Your task to perform on an android device: turn off priority inbox in the gmail app Image 0: 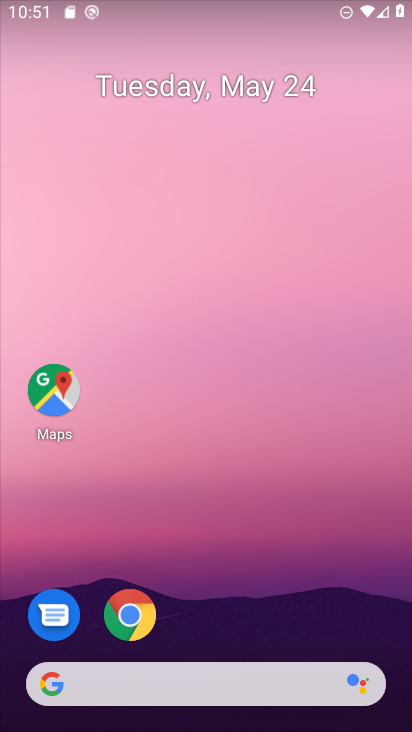
Step 0: press home button
Your task to perform on an android device: turn off priority inbox in the gmail app Image 1: 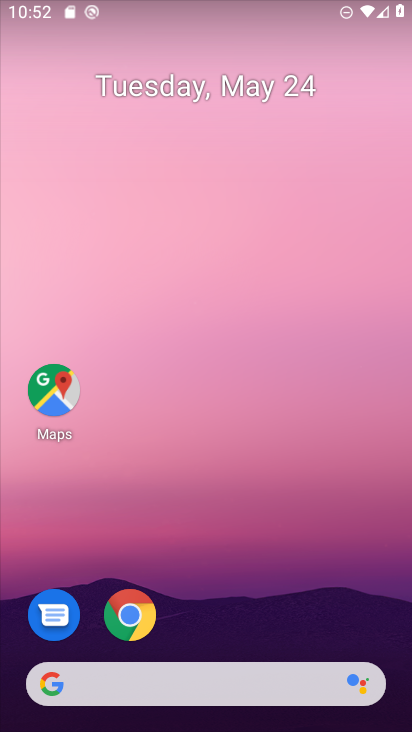
Step 1: drag from (303, 702) to (374, 3)
Your task to perform on an android device: turn off priority inbox in the gmail app Image 2: 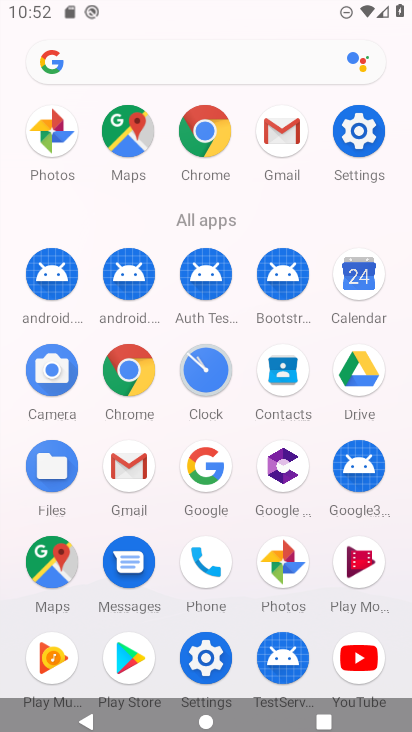
Step 2: click (302, 133)
Your task to perform on an android device: turn off priority inbox in the gmail app Image 3: 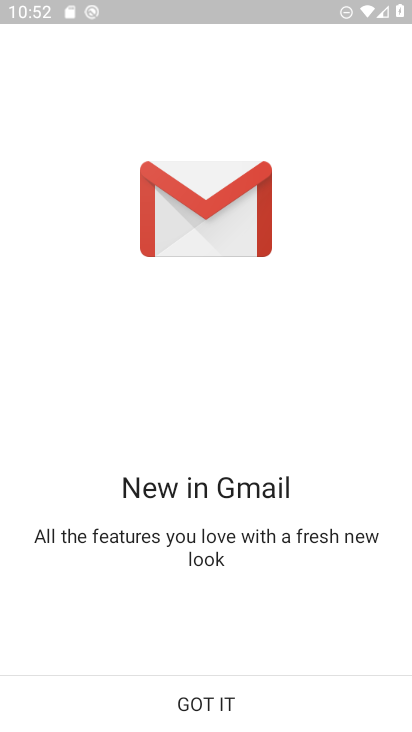
Step 3: click (218, 699)
Your task to perform on an android device: turn off priority inbox in the gmail app Image 4: 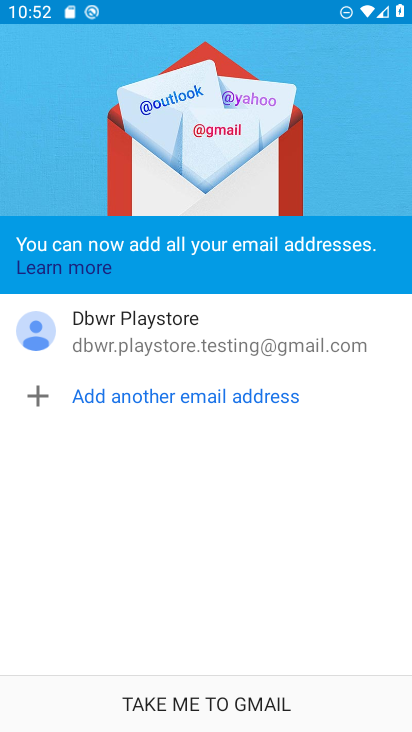
Step 4: click (249, 703)
Your task to perform on an android device: turn off priority inbox in the gmail app Image 5: 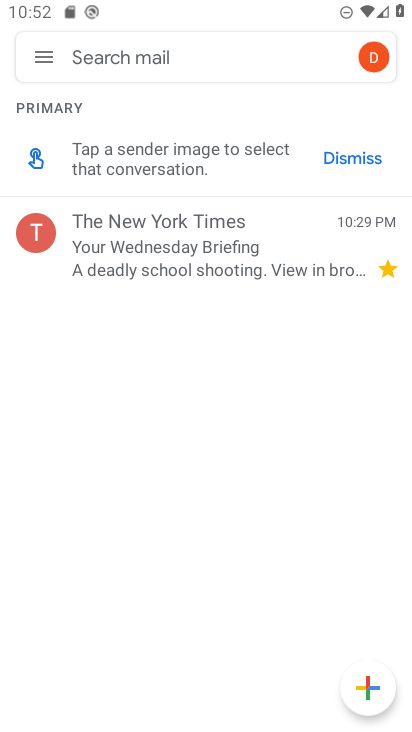
Step 5: click (41, 86)
Your task to perform on an android device: turn off priority inbox in the gmail app Image 6: 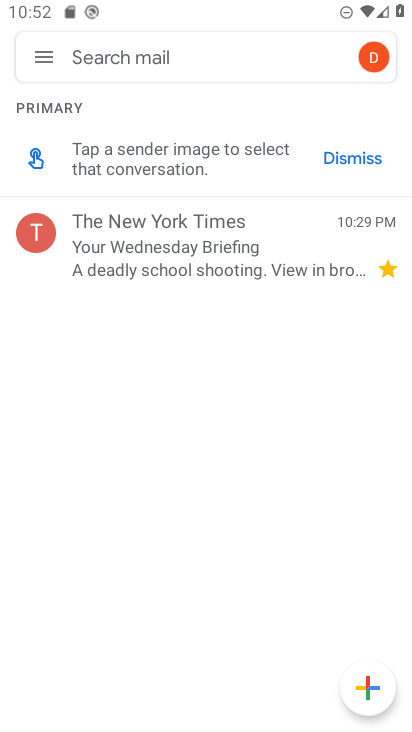
Step 6: click (59, 50)
Your task to perform on an android device: turn off priority inbox in the gmail app Image 7: 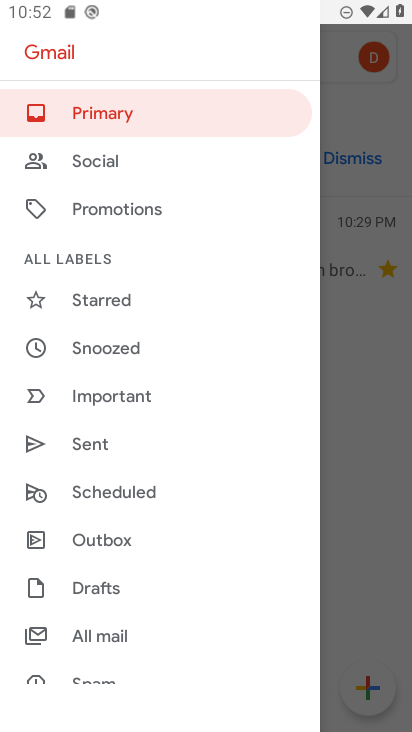
Step 7: drag from (128, 622) to (223, 266)
Your task to perform on an android device: turn off priority inbox in the gmail app Image 8: 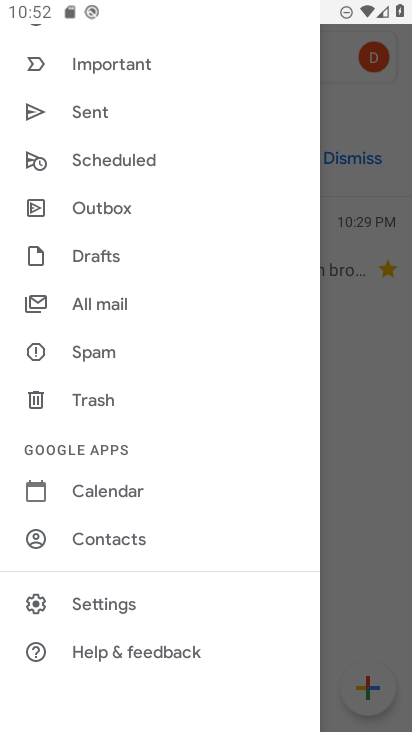
Step 8: click (132, 598)
Your task to perform on an android device: turn off priority inbox in the gmail app Image 9: 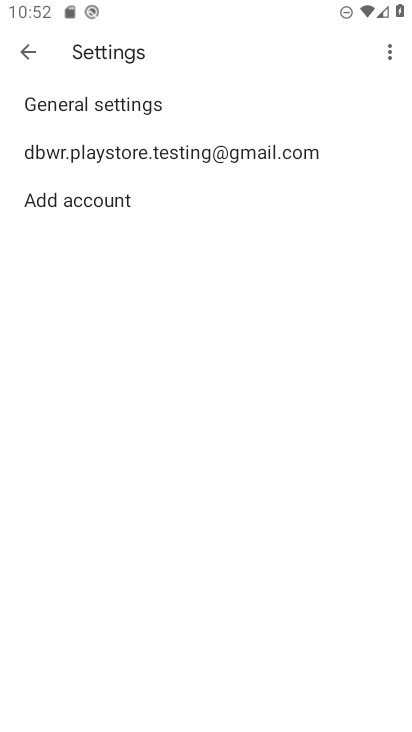
Step 9: click (205, 138)
Your task to perform on an android device: turn off priority inbox in the gmail app Image 10: 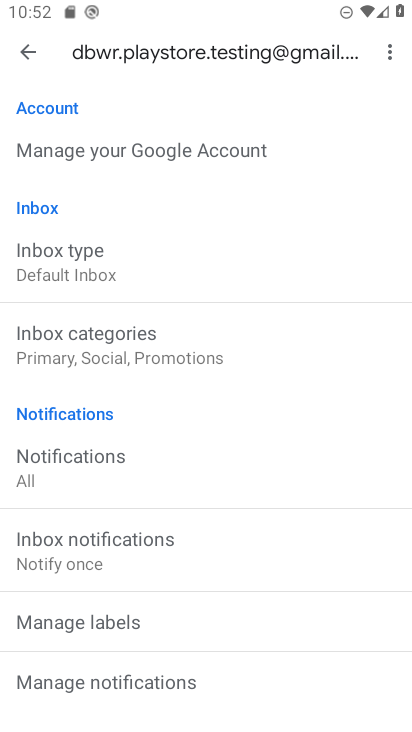
Step 10: click (128, 264)
Your task to perform on an android device: turn off priority inbox in the gmail app Image 11: 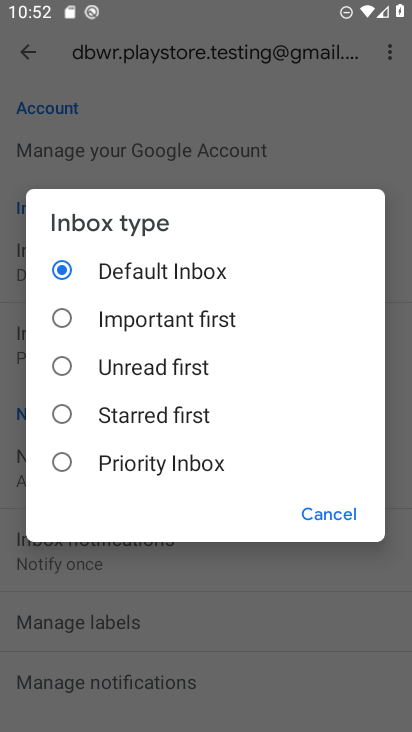
Step 11: task complete